Your task to perform on an android device: What's the weather going to be this weekend? Image 0: 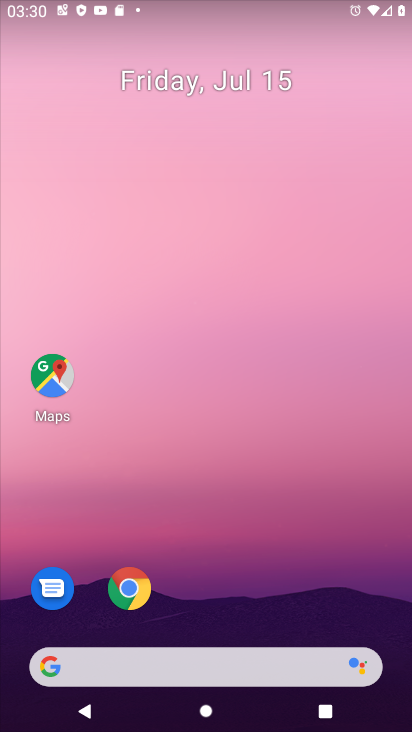
Step 0: drag from (204, 676) to (269, 169)
Your task to perform on an android device: What's the weather going to be this weekend? Image 1: 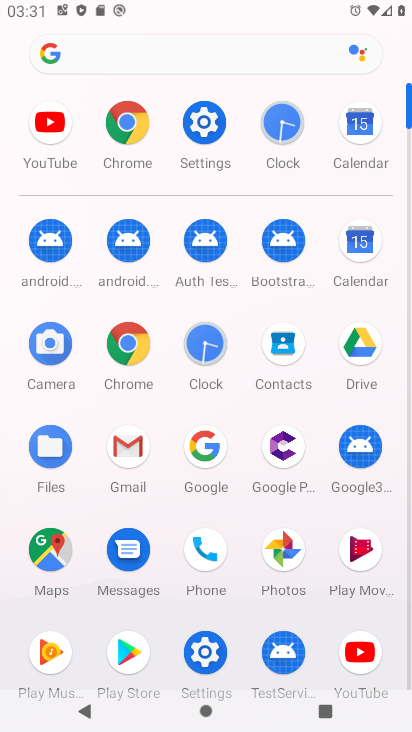
Step 1: click (201, 443)
Your task to perform on an android device: What's the weather going to be this weekend? Image 2: 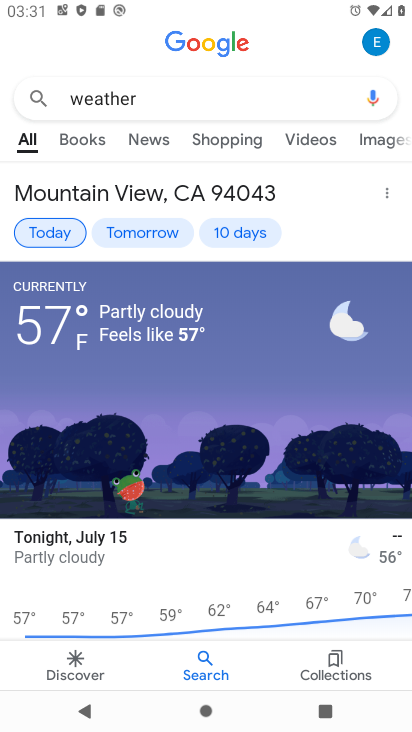
Step 2: click (234, 233)
Your task to perform on an android device: What's the weather going to be this weekend? Image 3: 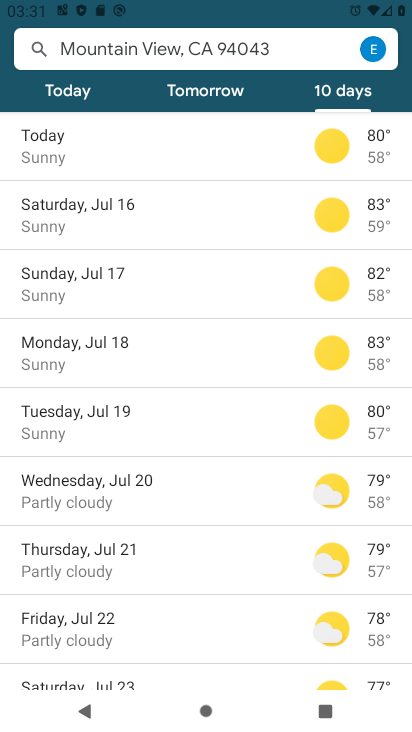
Step 3: task complete